Your task to perform on an android device: turn off data saver in the chrome app Image 0: 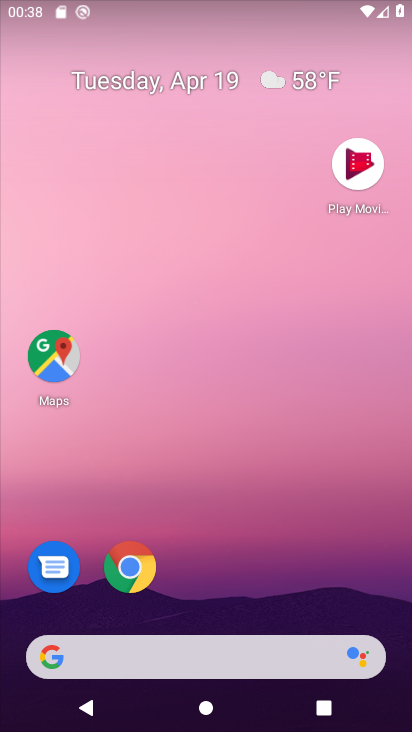
Step 0: drag from (179, 414) to (159, 96)
Your task to perform on an android device: turn off data saver in the chrome app Image 1: 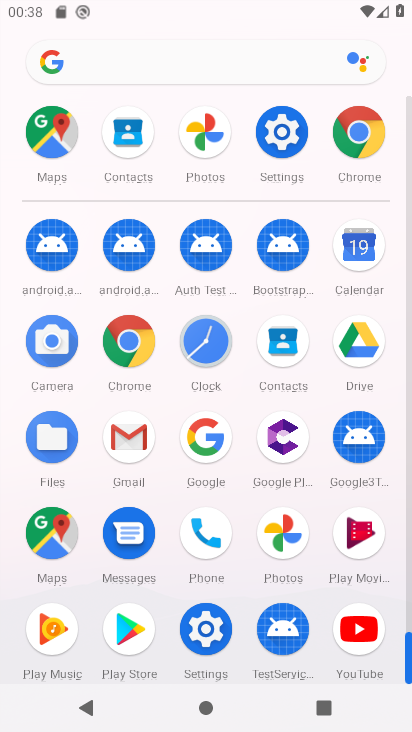
Step 1: click (121, 346)
Your task to perform on an android device: turn off data saver in the chrome app Image 2: 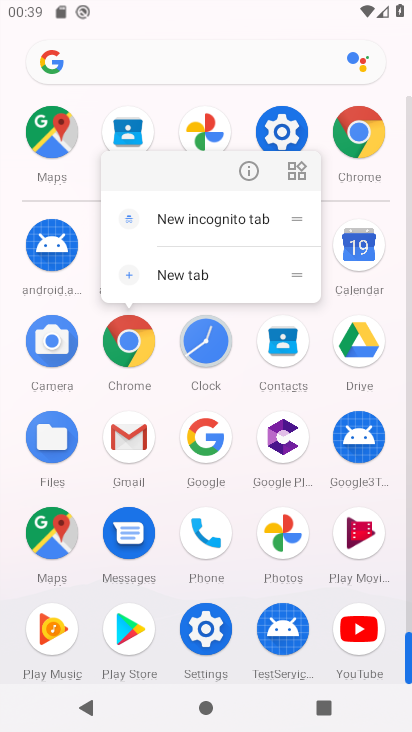
Step 2: click (245, 179)
Your task to perform on an android device: turn off data saver in the chrome app Image 3: 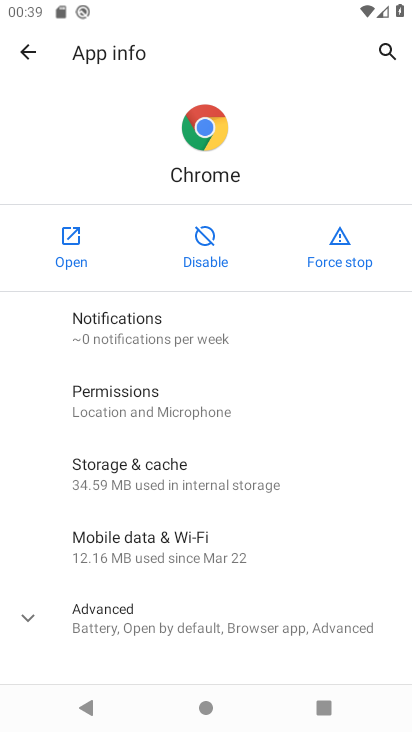
Step 3: drag from (174, 590) to (266, 128)
Your task to perform on an android device: turn off data saver in the chrome app Image 4: 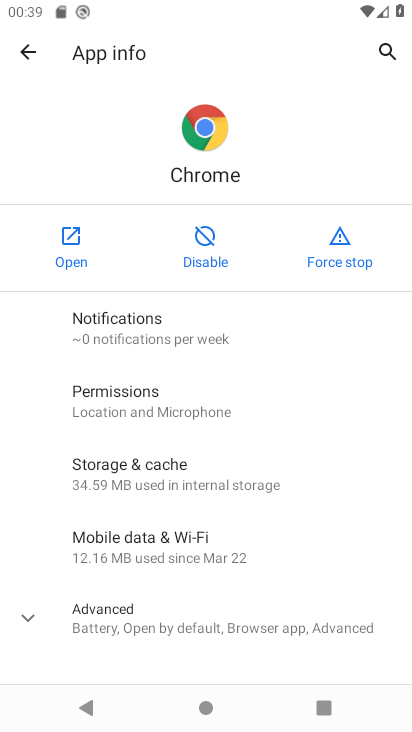
Step 4: click (48, 252)
Your task to perform on an android device: turn off data saver in the chrome app Image 5: 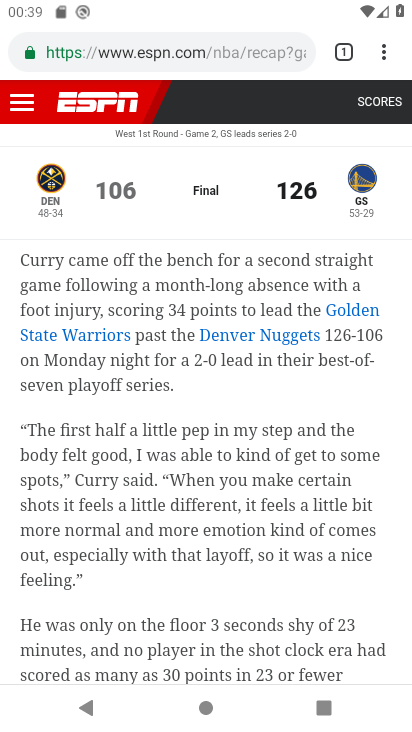
Step 5: drag from (300, 95) to (338, 484)
Your task to perform on an android device: turn off data saver in the chrome app Image 6: 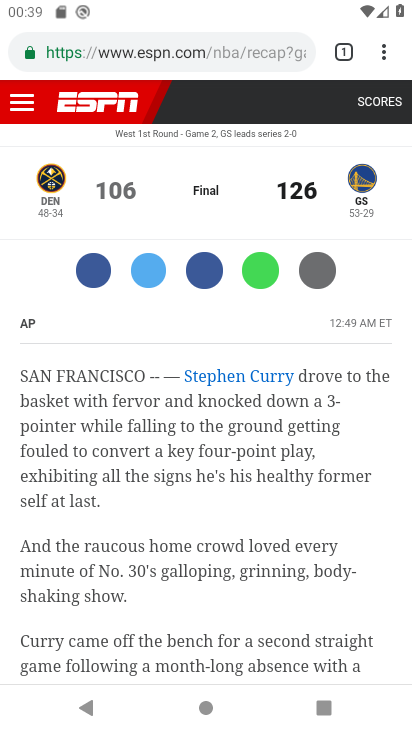
Step 6: click (385, 50)
Your task to perform on an android device: turn off data saver in the chrome app Image 7: 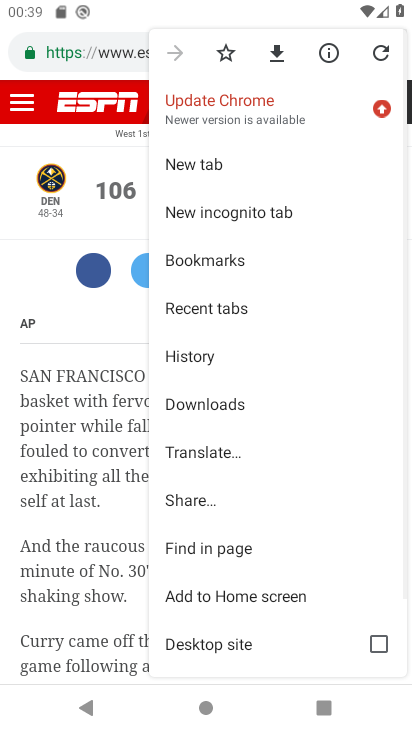
Step 7: drag from (249, 591) to (289, 109)
Your task to perform on an android device: turn off data saver in the chrome app Image 8: 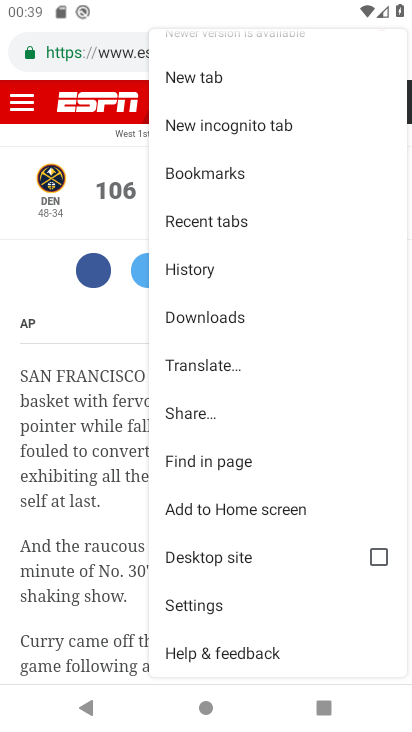
Step 8: click (218, 614)
Your task to perform on an android device: turn off data saver in the chrome app Image 9: 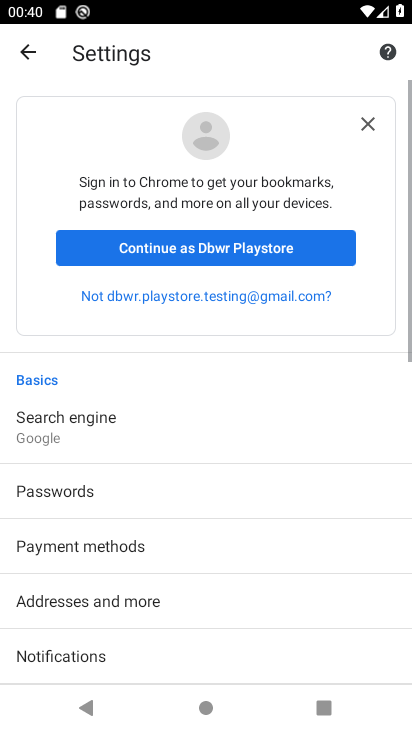
Step 9: drag from (190, 585) to (258, 99)
Your task to perform on an android device: turn off data saver in the chrome app Image 10: 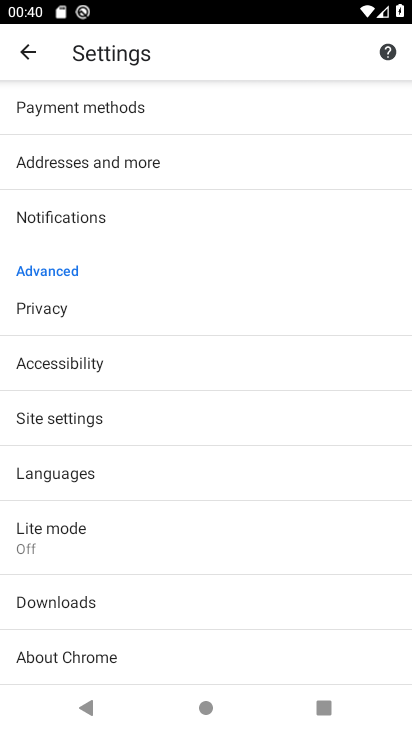
Step 10: drag from (126, 641) to (172, 203)
Your task to perform on an android device: turn off data saver in the chrome app Image 11: 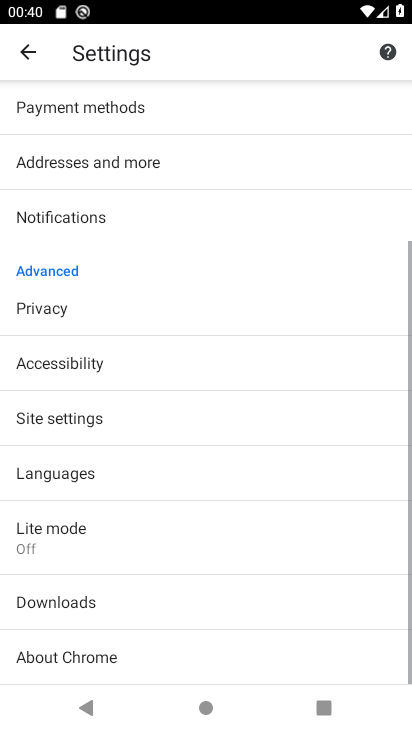
Step 11: click (90, 543)
Your task to perform on an android device: turn off data saver in the chrome app Image 12: 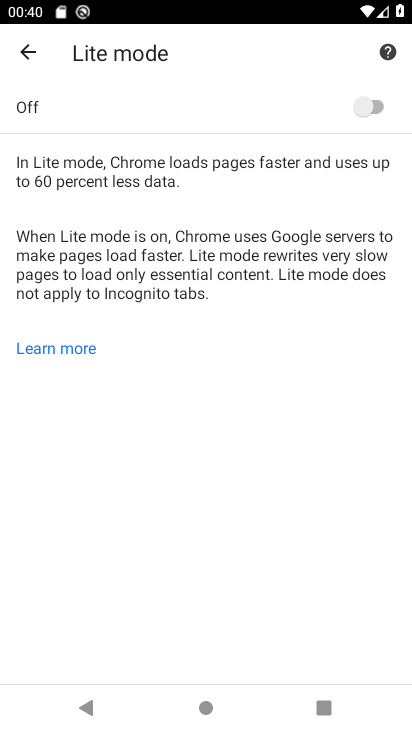
Step 12: click (350, 119)
Your task to perform on an android device: turn off data saver in the chrome app Image 13: 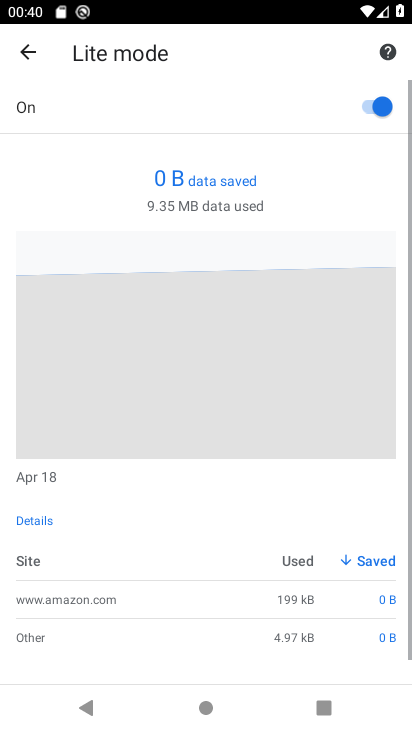
Step 13: click (363, 100)
Your task to perform on an android device: turn off data saver in the chrome app Image 14: 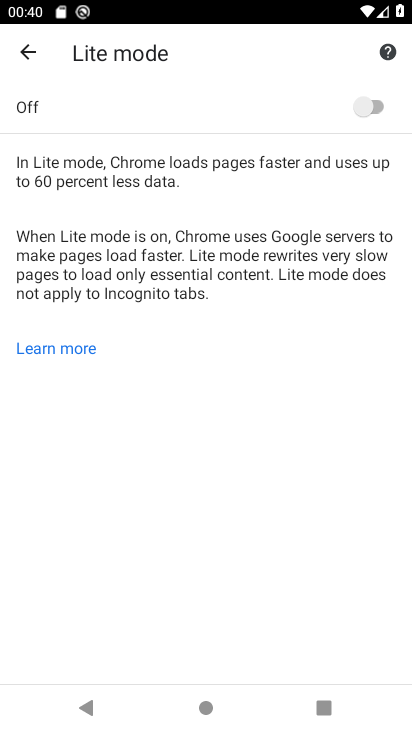
Step 14: task complete